Your task to perform on an android device: set default search engine in the chrome app Image 0: 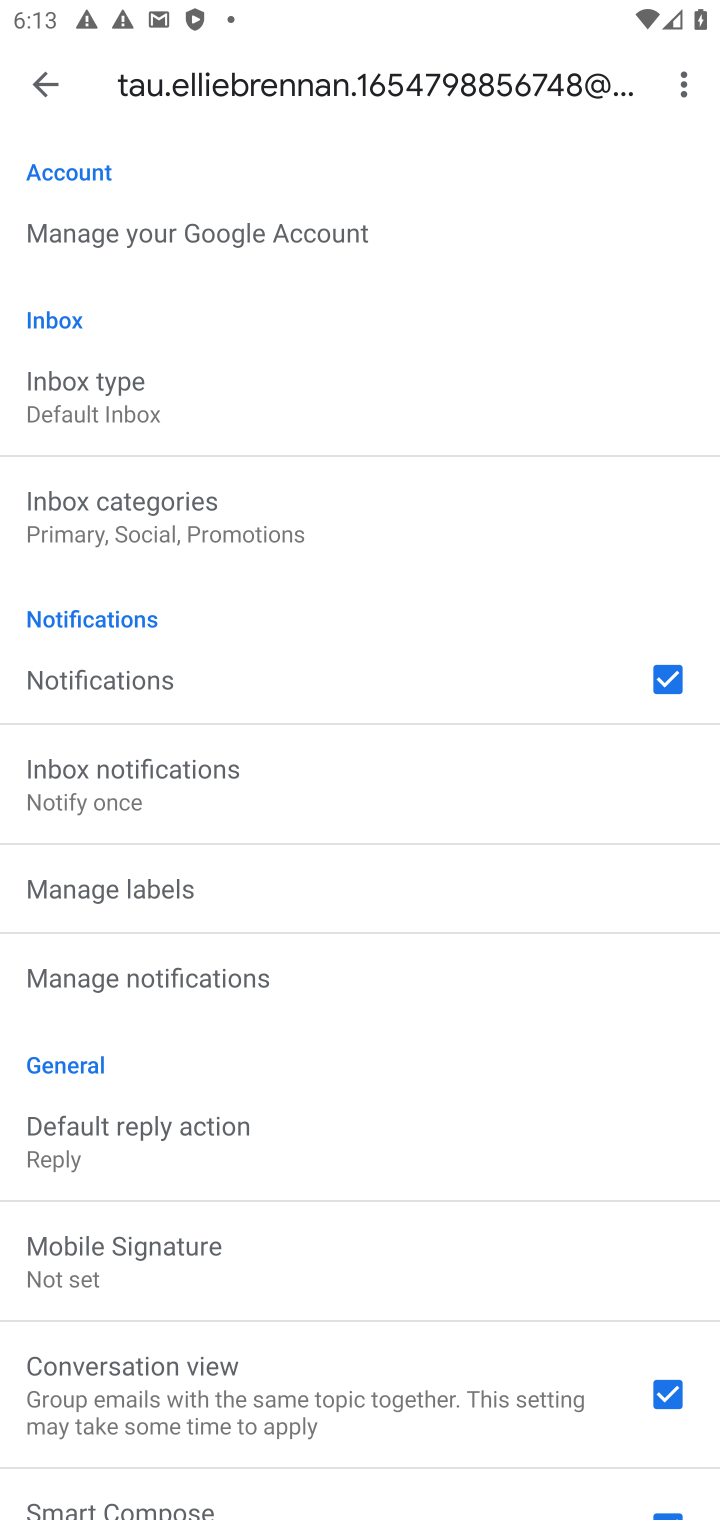
Step 0: press back button
Your task to perform on an android device: set default search engine in the chrome app Image 1: 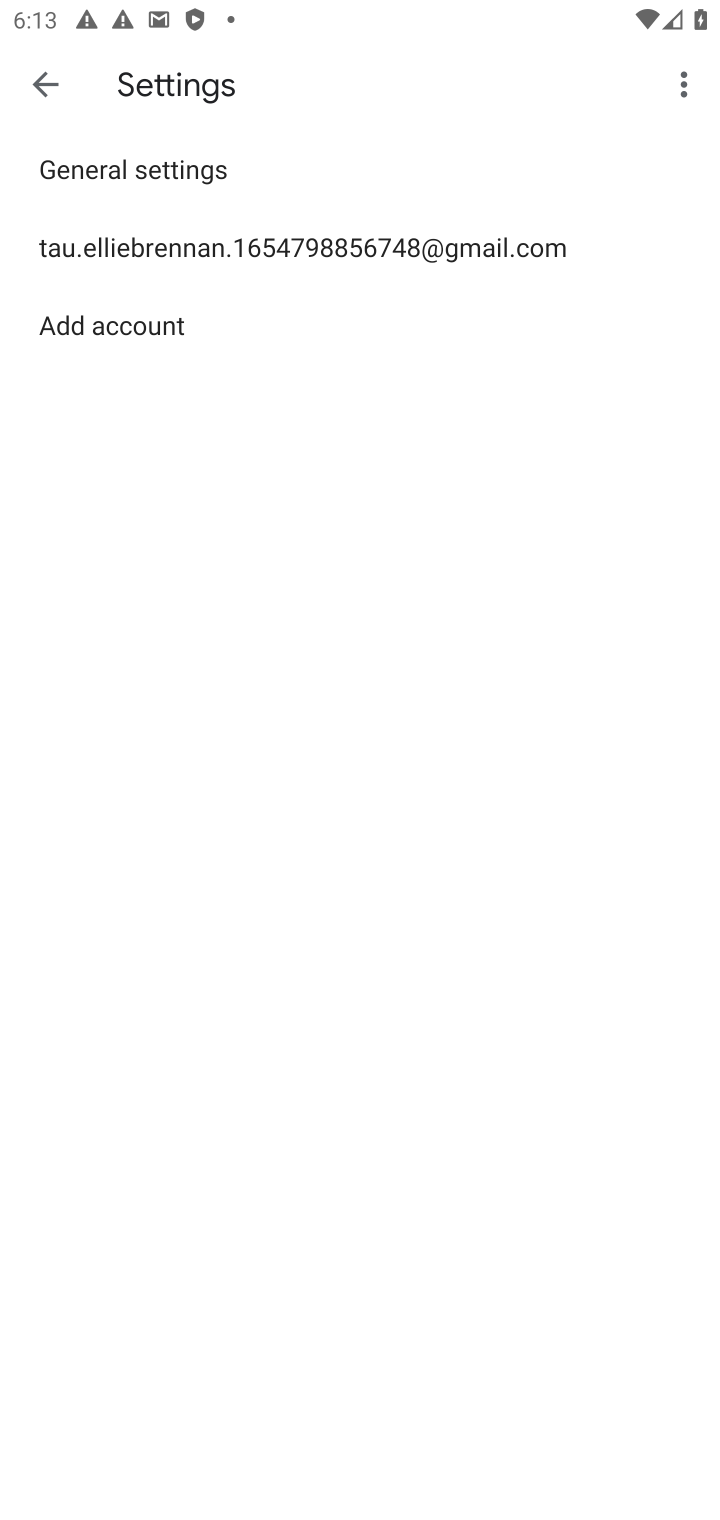
Step 1: press home button
Your task to perform on an android device: set default search engine in the chrome app Image 2: 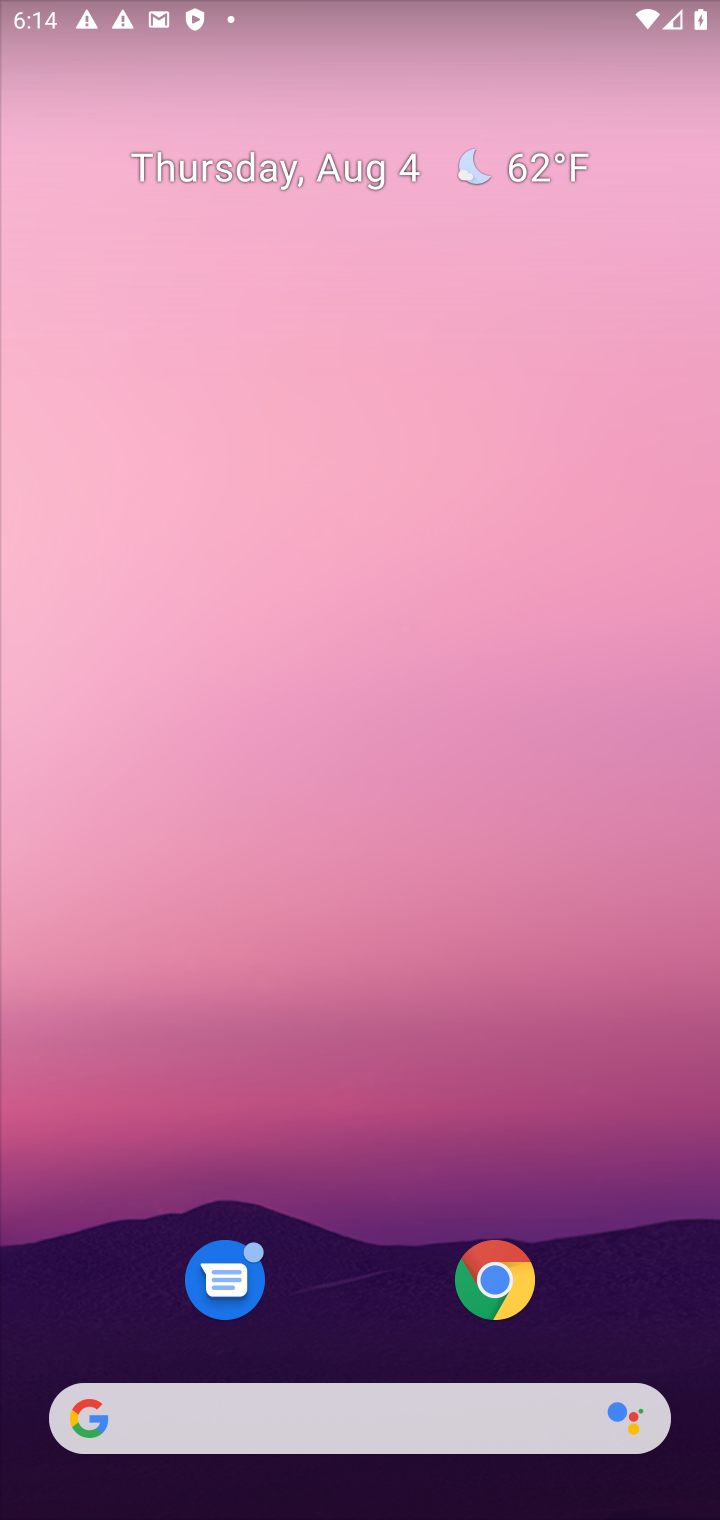
Step 2: click (514, 1286)
Your task to perform on an android device: set default search engine in the chrome app Image 3: 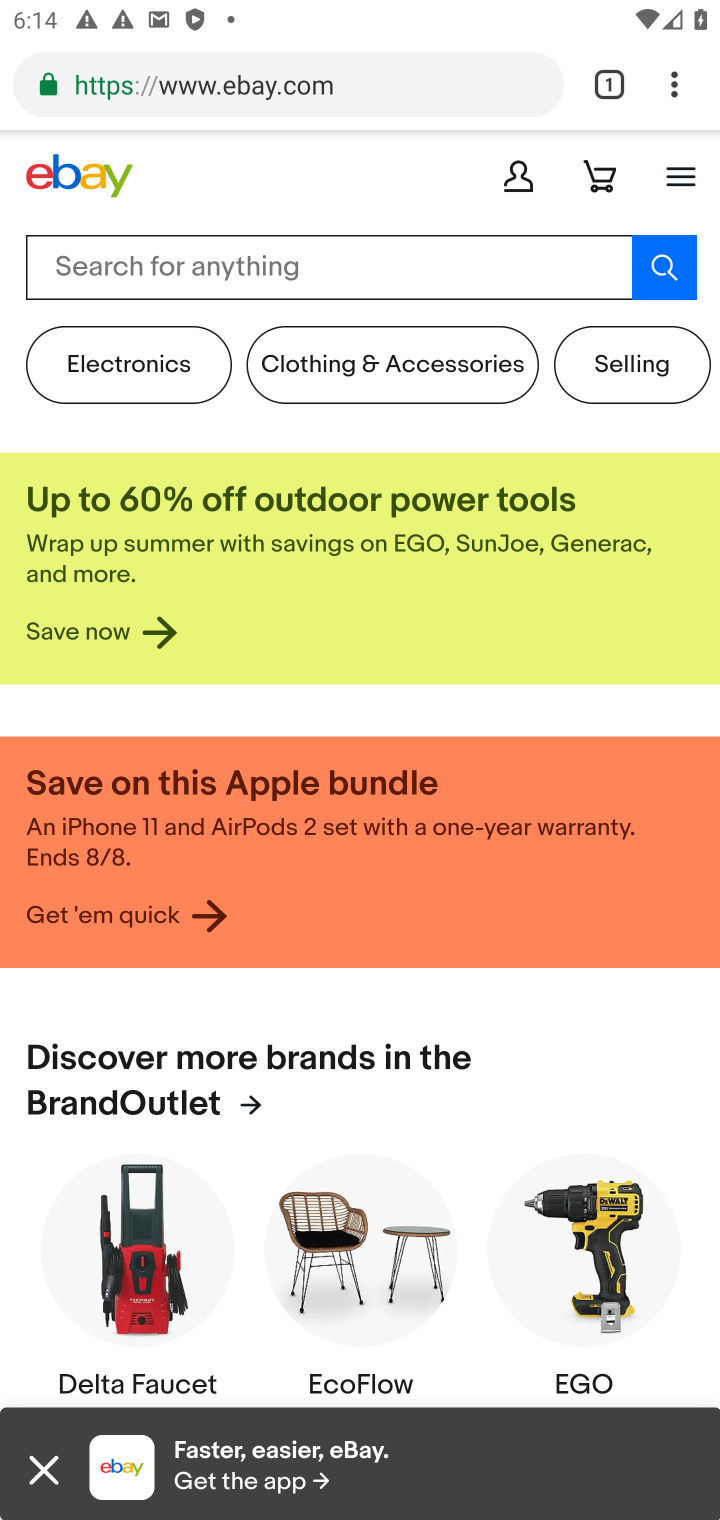
Step 3: click (674, 83)
Your task to perform on an android device: set default search engine in the chrome app Image 4: 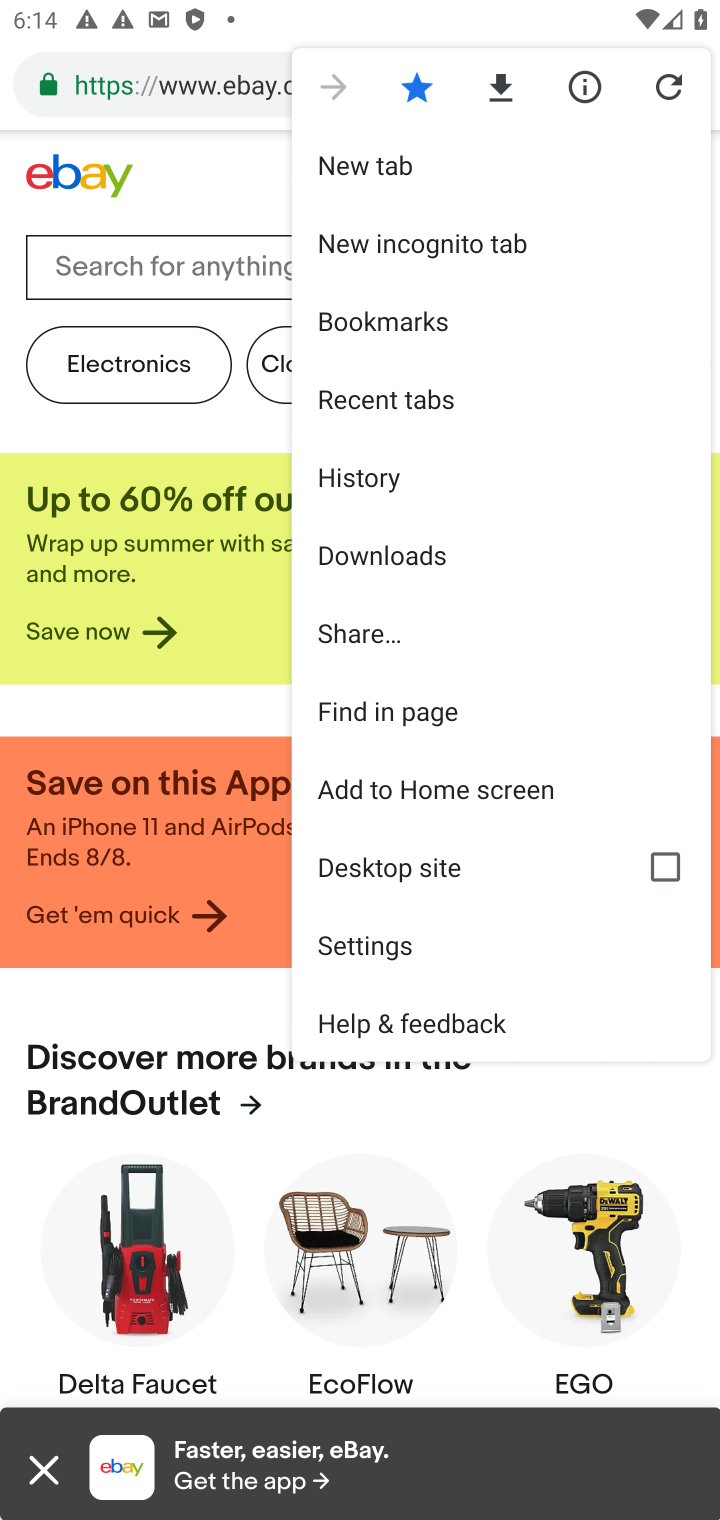
Step 4: click (348, 946)
Your task to perform on an android device: set default search engine in the chrome app Image 5: 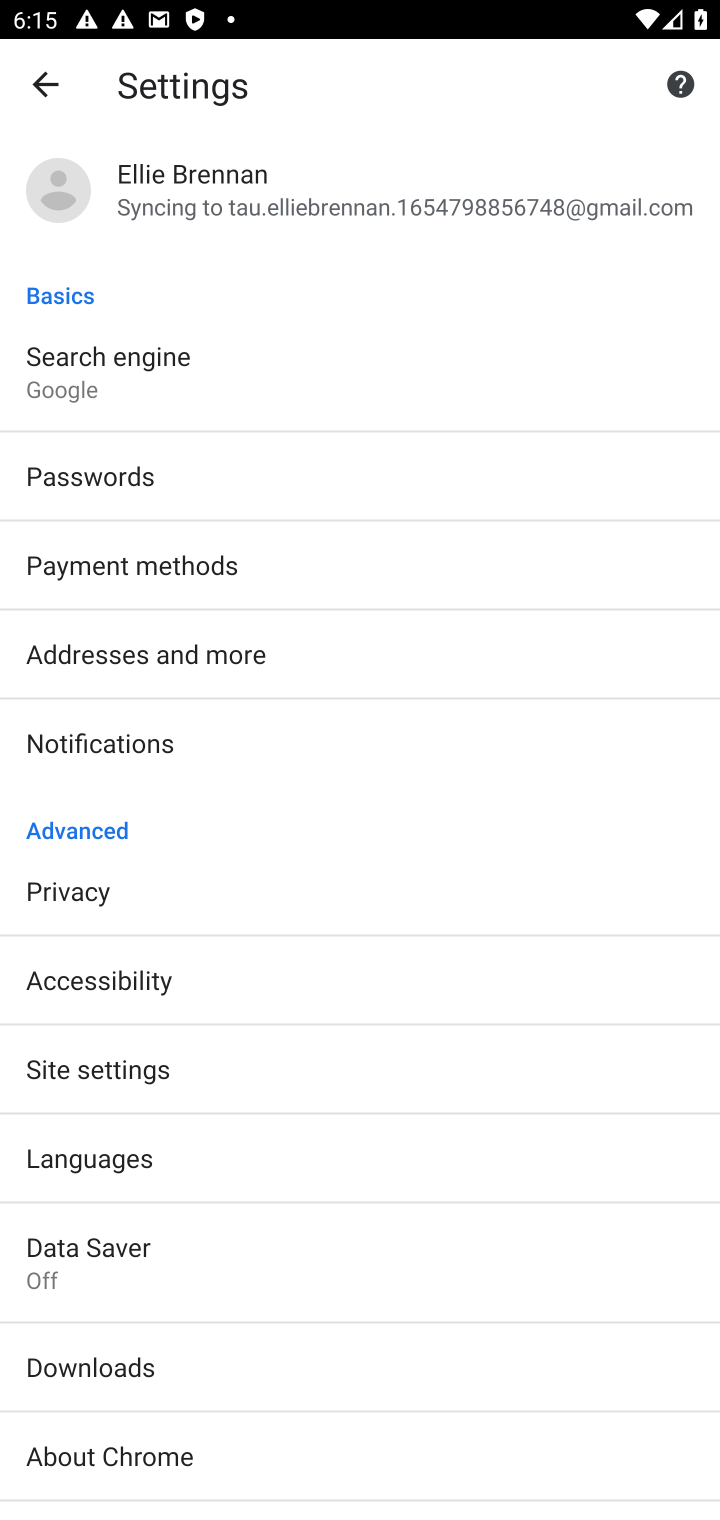
Step 5: click (59, 394)
Your task to perform on an android device: set default search engine in the chrome app Image 6: 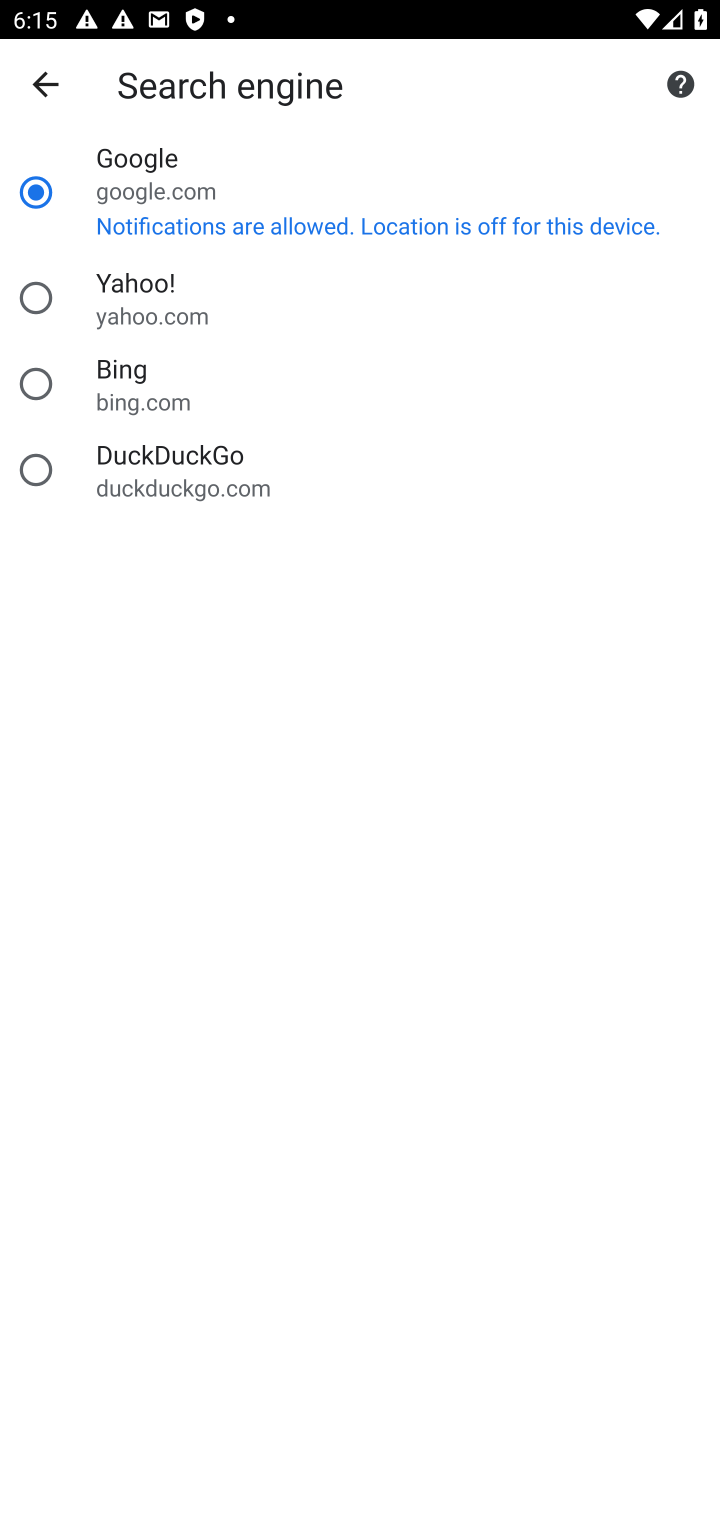
Step 6: click (38, 311)
Your task to perform on an android device: set default search engine in the chrome app Image 7: 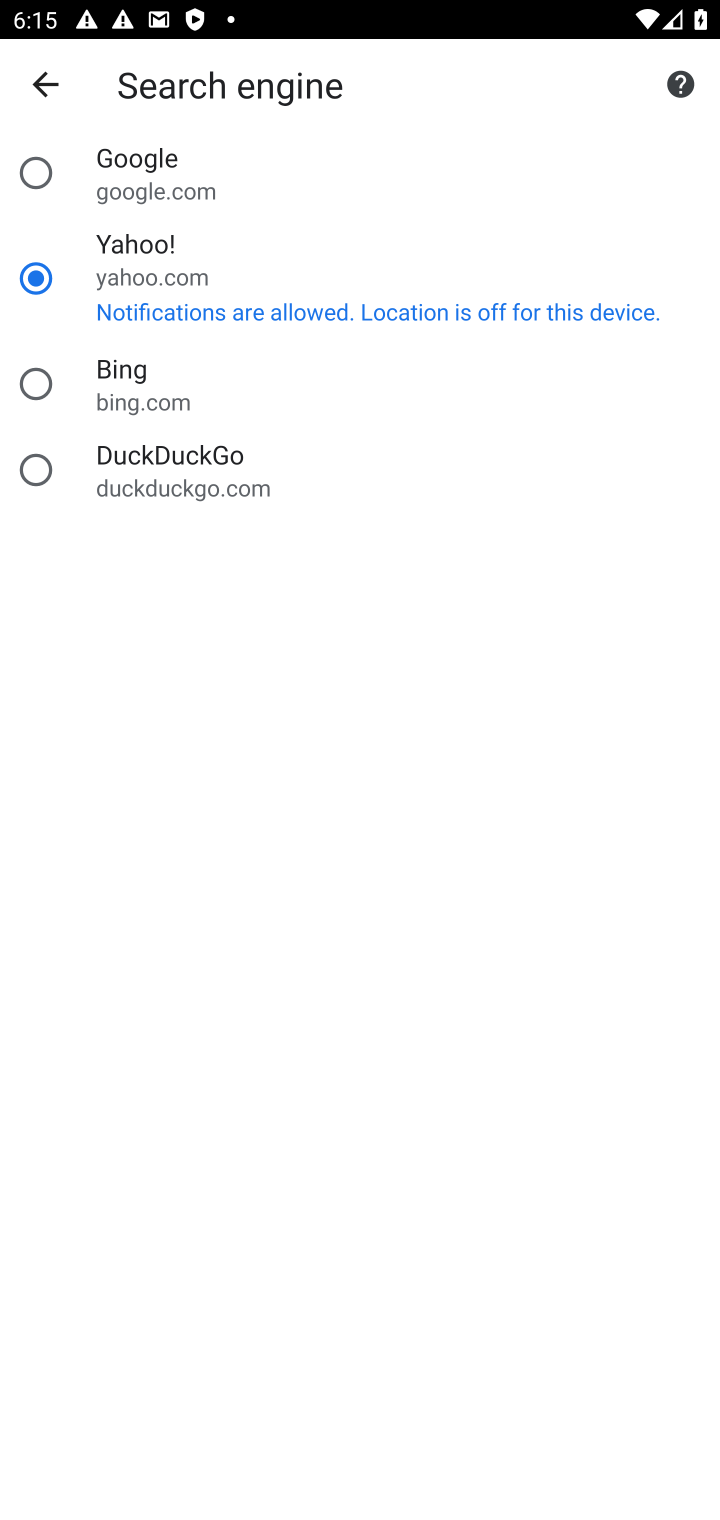
Step 7: task complete